Your task to perform on an android device: move a message to another label in the gmail app Image 0: 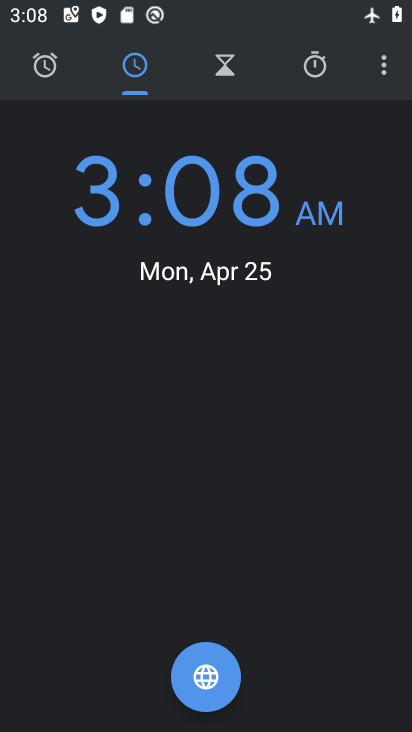
Step 0: press home button
Your task to perform on an android device: move a message to another label in the gmail app Image 1: 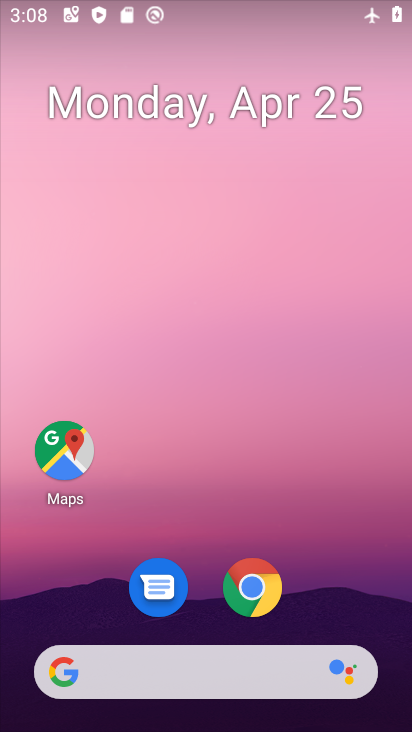
Step 1: drag from (204, 430) to (168, 173)
Your task to perform on an android device: move a message to another label in the gmail app Image 2: 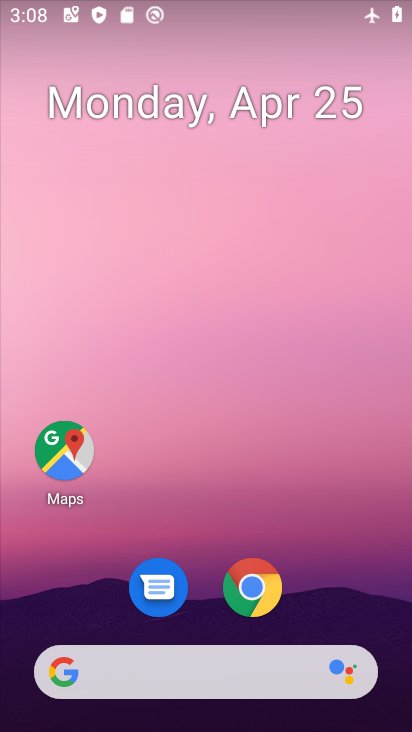
Step 2: drag from (216, 592) to (193, 275)
Your task to perform on an android device: move a message to another label in the gmail app Image 3: 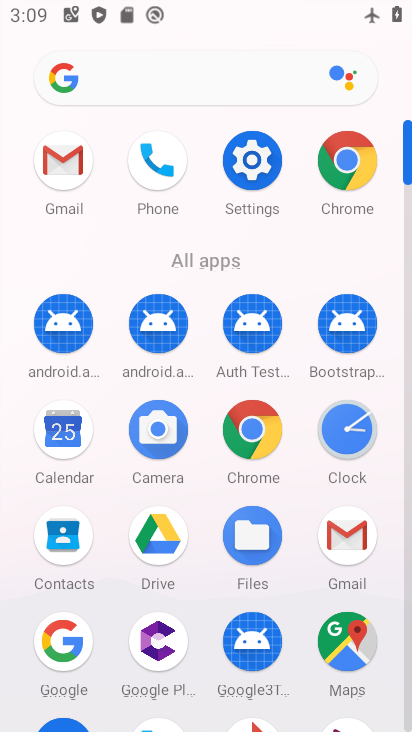
Step 3: click (64, 164)
Your task to perform on an android device: move a message to another label in the gmail app Image 4: 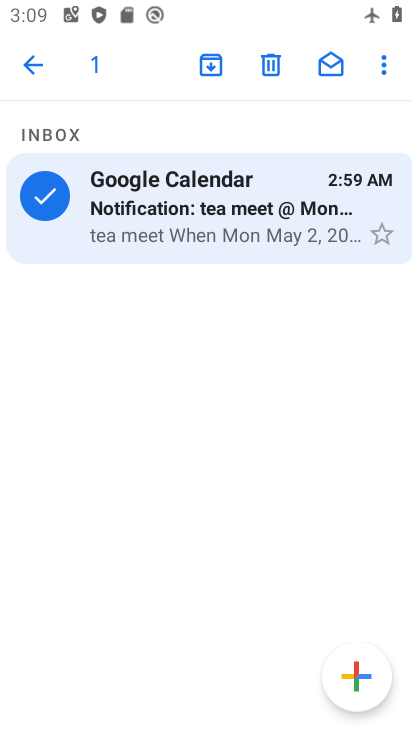
Step 4: press back button
Your task to perform on an android device: move a message to another label in the gmail app Image 5: 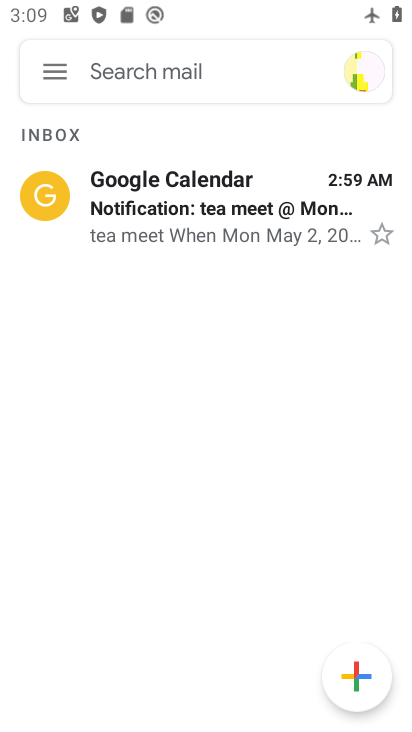
Step 5: press back button
Your task to perform on an android device: move a message to another label in the gmail app Image 6: 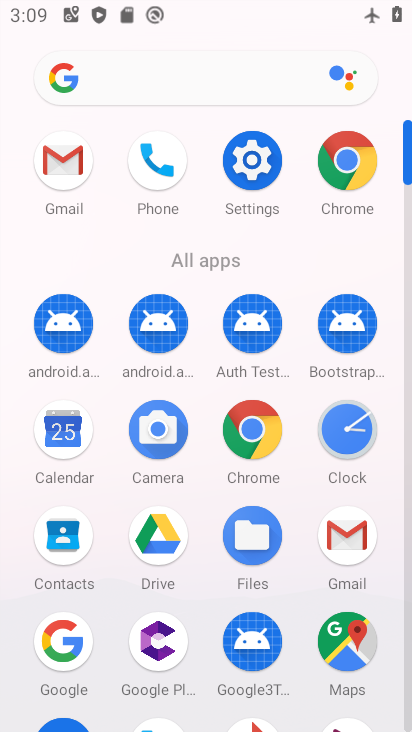
Step 6: click (64, 161)
Your task to perform on an android device: move a message to another label in the gmail app Image 7: 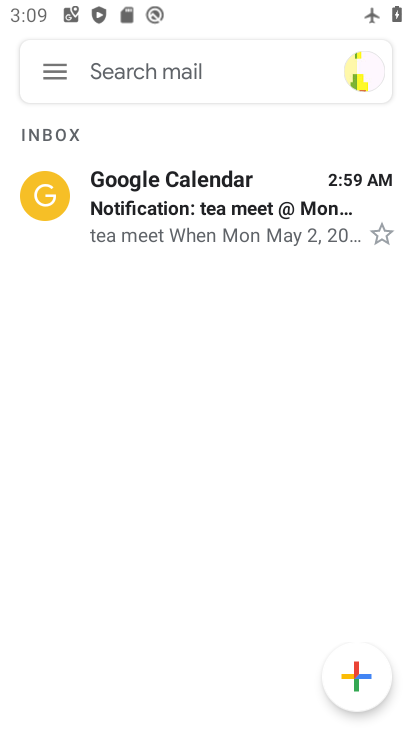
Step 7: click (54, 69)
Your task to perform on an android device: move a message to another label in the gmail app Image 8: 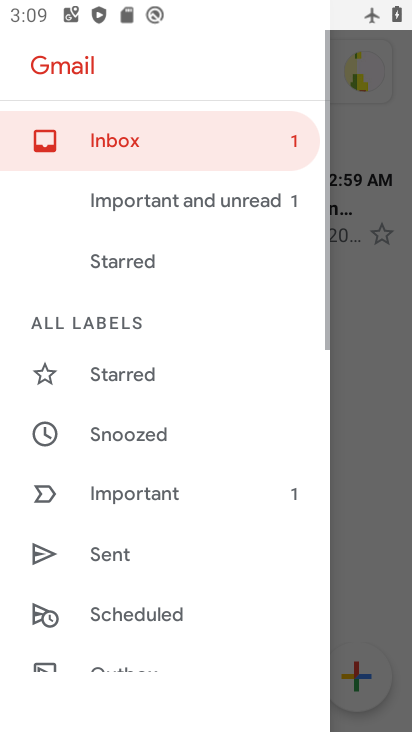
Step 8: drag from (182, 506) to (187, 370)
Your task to perform on an android device: move a message to another label in the gmail app Image 9: 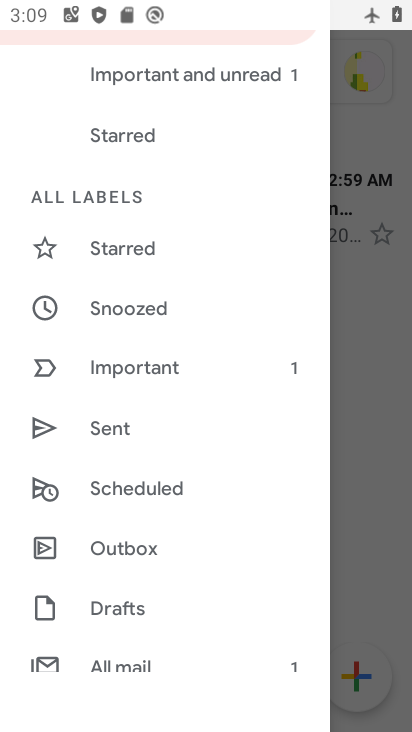
Step 9: click (150, 663)
Your task to perform on an android device: move a message to another label in the gmail app Image 10: 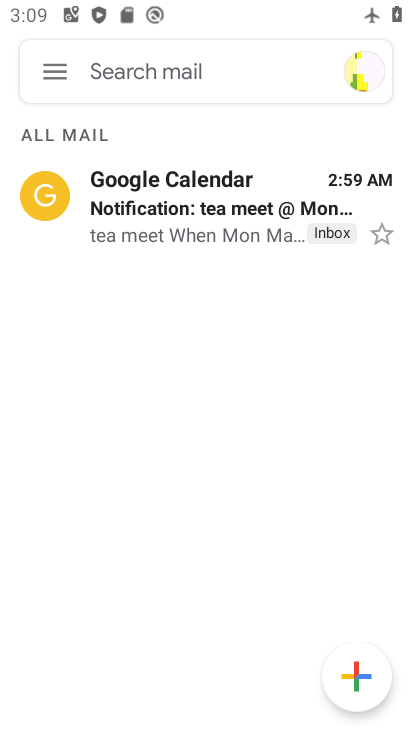
Step 10: click (203, 206)
Your task to perform on an android device: move a message to another label in the gmail app Image 11: 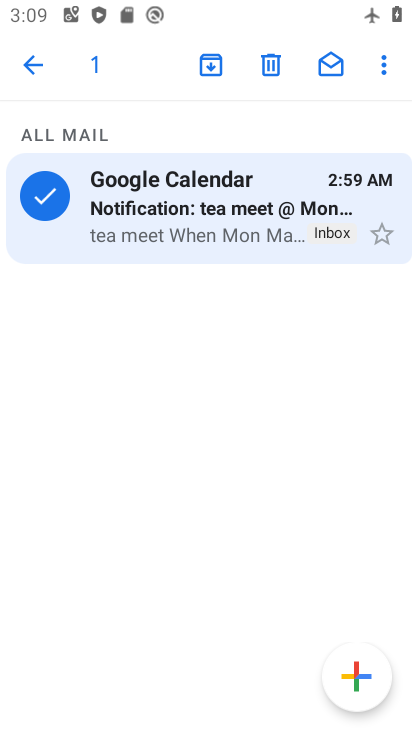
Step 11: click (381, 63)
Your task to perform on an android device: move a message to another label in the gmail app Image 12: 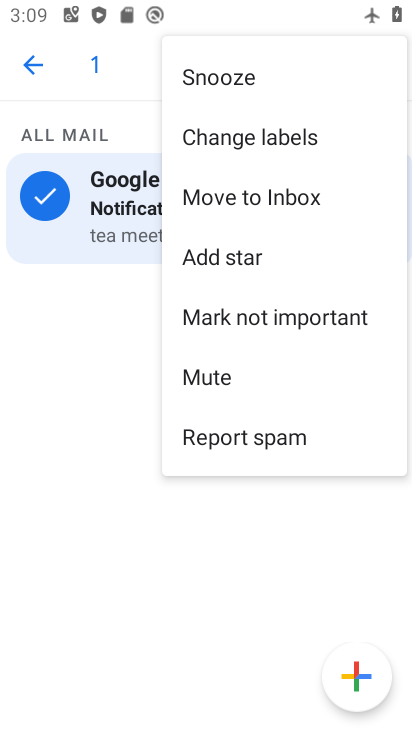
Step 12: click (248, 136)
Your task to perform on an android device: move a message to another label in the gmail app Image 13: 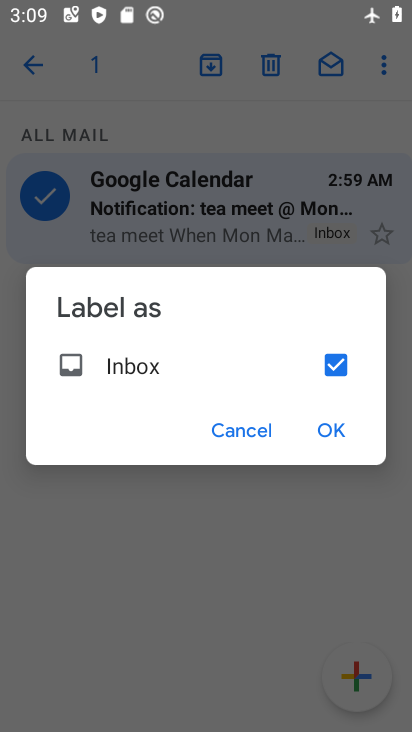
Step 13: click (331, 443)
Your task to perform on an android device: move a message to another label in the gmail app Image 14: 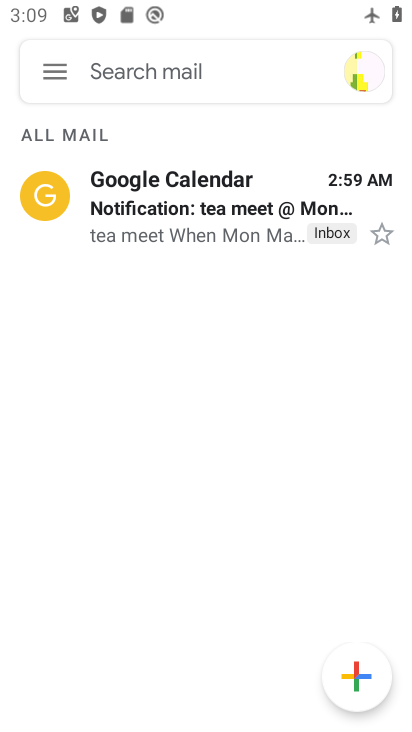
Step 14: task complete